Your task to perform on an android device: When is my next meeting? Image 0: 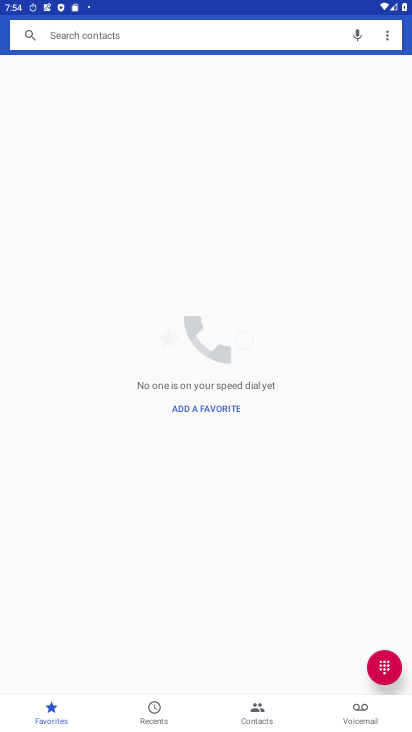
Step 0: press home button
Your task to perform on an android device: When is my next meeting? Image 1: 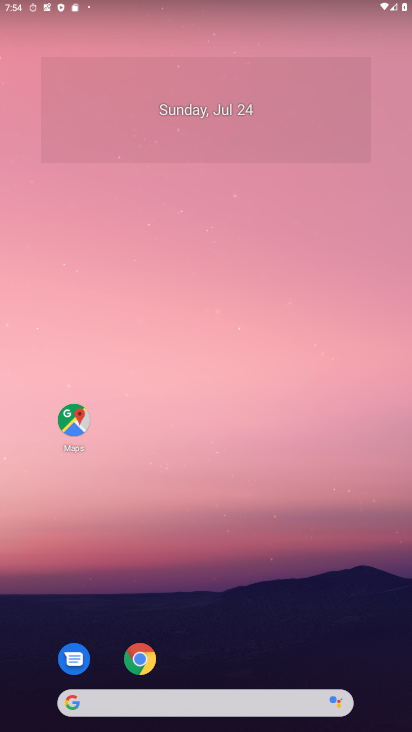
Step 1: drag from (313, 631) to (324, 217)
Your task to perform on an android device: When is my next meeting? Image 2: 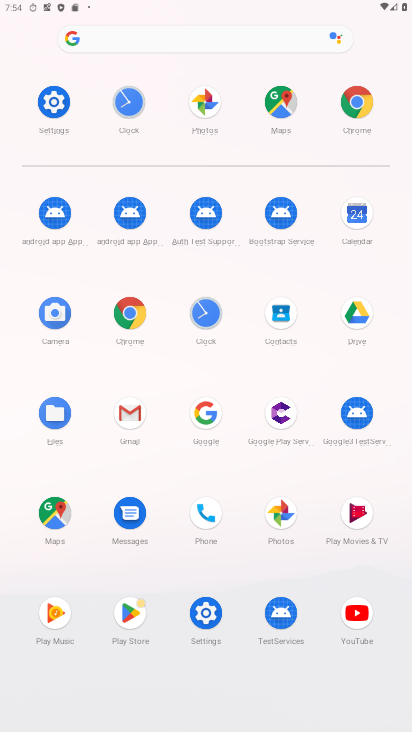
Step 2: click (356, 212)
Your task to perform on an android device: When is my next meeting? Image 3: 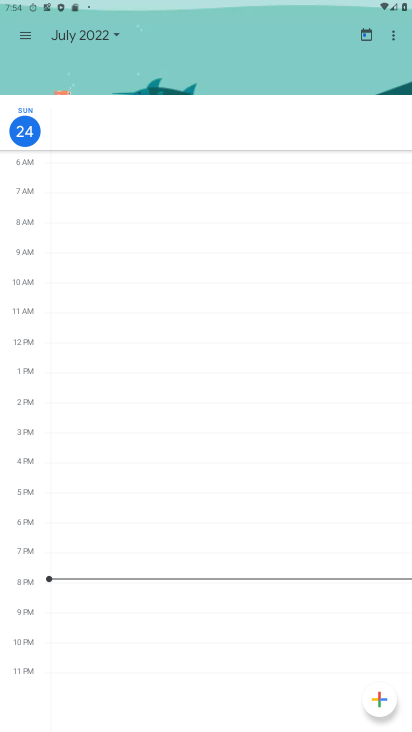
Step 3: click (22, 39)
Your task to perform on an android device: When is my next meeting? Image 4: 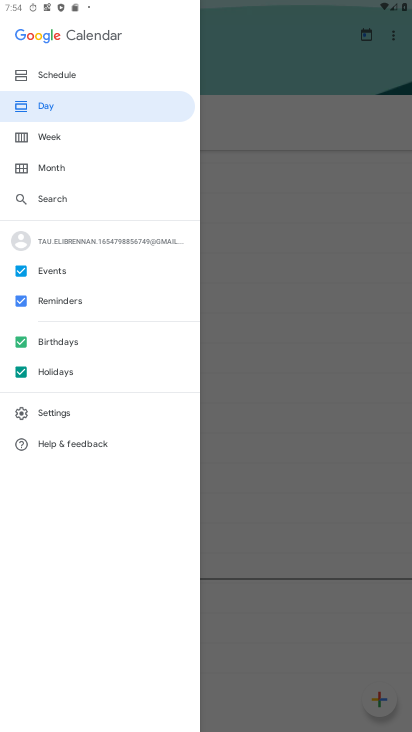
Step 4: click (70, 140)
Your task to perform on an android device: When is my next meeting? Image 5: 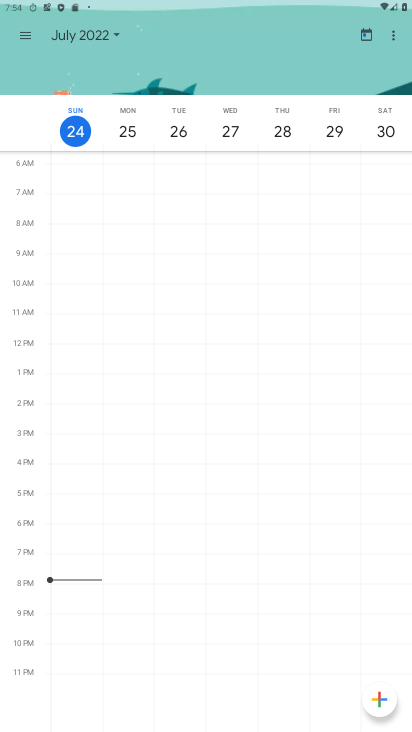
Step 5: task complete